Your task to perform on an android device: make emails show in primary in the gmail app Image 0: 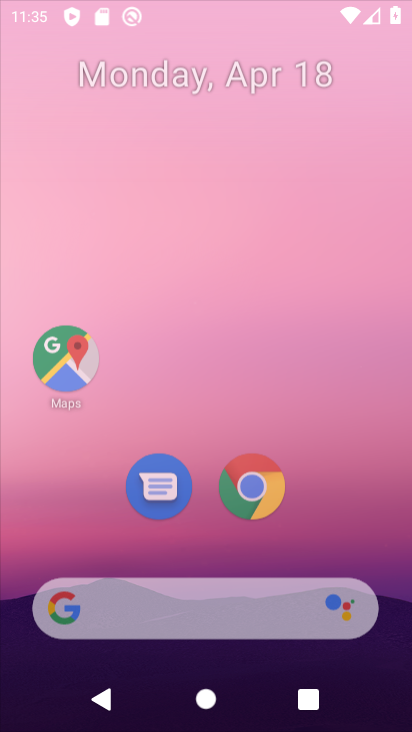
Step 0: press home button
Your task to perform on an android device: make emails show in primary in the gmail app Image 1: 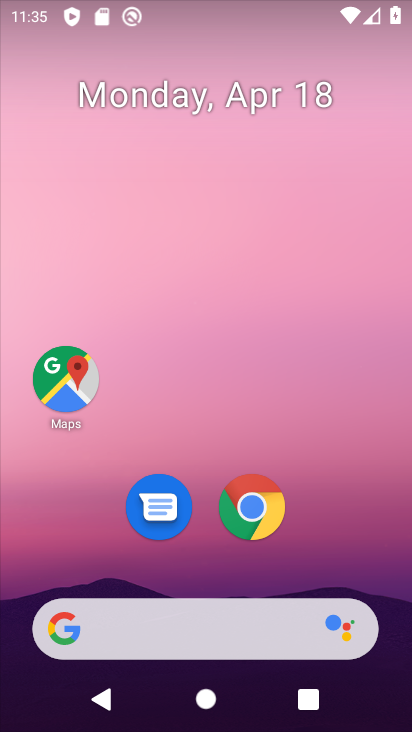
Step 1: drag from (212, 549) to (236, 1)
Your task to perform on an android device: make emails show in primary in the gmail app Image 2: 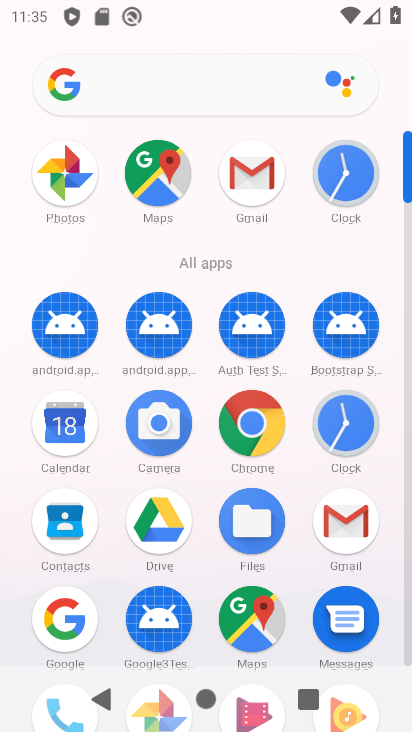
Step 2: click (349, 520)
Your task to perform on an android device: make emails show in primary in the gmail app Image 3: 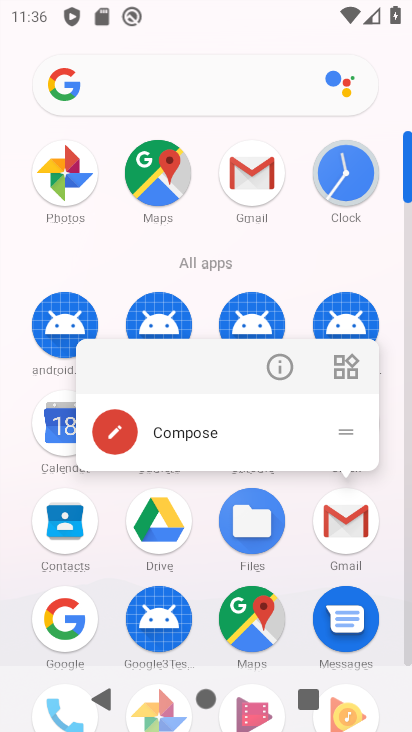
Step 3: click (343, 510)
Your task to perform on an android device: make emails show in primary in the gmail app Image 4: 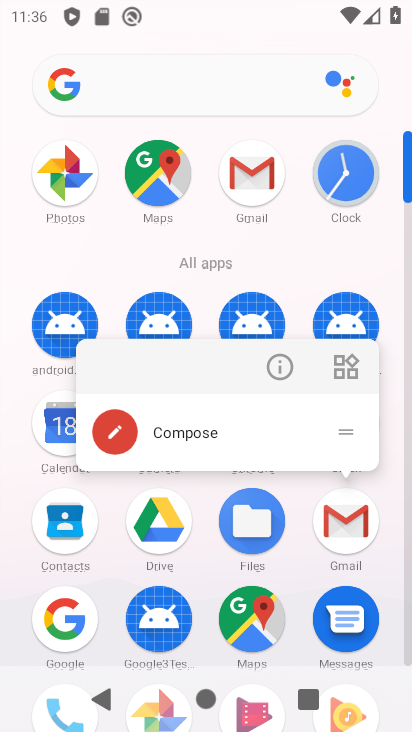
Step 4: click (342, 513)
Your task to perform on an android device: make emails show in primary in the gmail app Image 5: 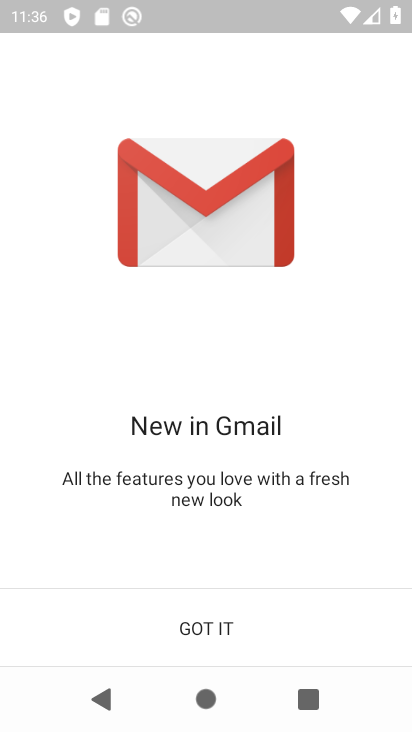
Step 5: click (207, 633)
Your task to perform on an android device: make emails show in primary in the gmail app Image 6: 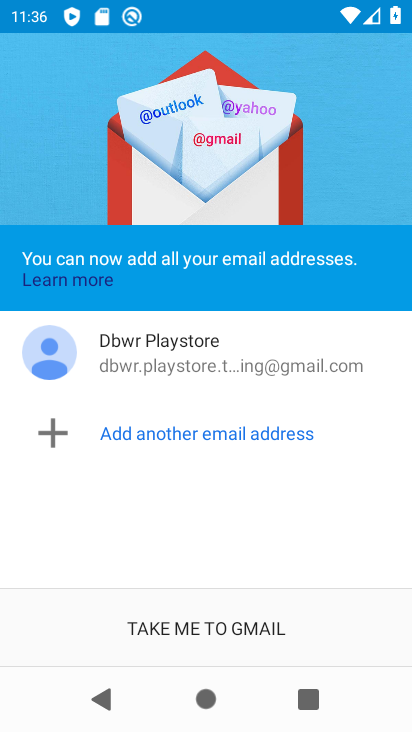
Step 6: click (207, 633)
Your task to perform on an android device: make emails show in primary in the gmail app Image 7: 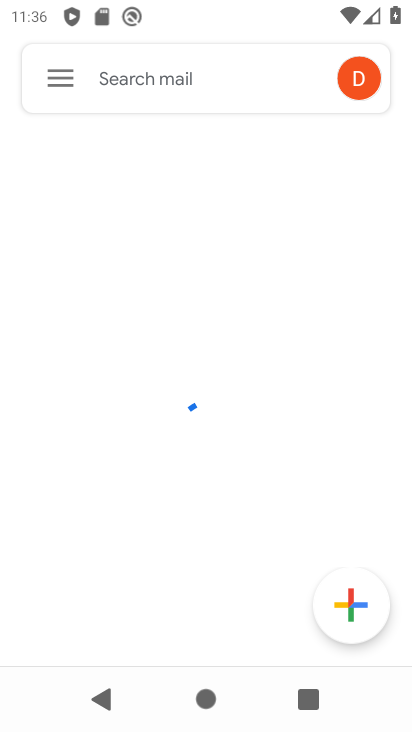
Step 7: click (64, 77)
Your task to perform on an android device: make emails show in primary in the gmail app Image 8: 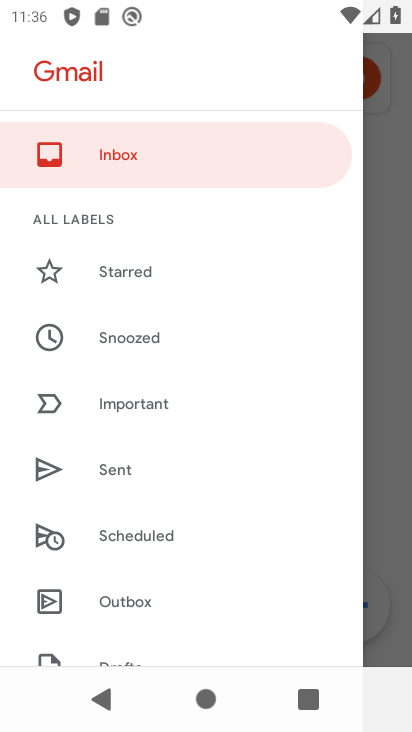
Step 8: drag from (159, 583) to (242, 57)
Your task to perform on an android device: make emails show in primary in the gmail app Image 9: 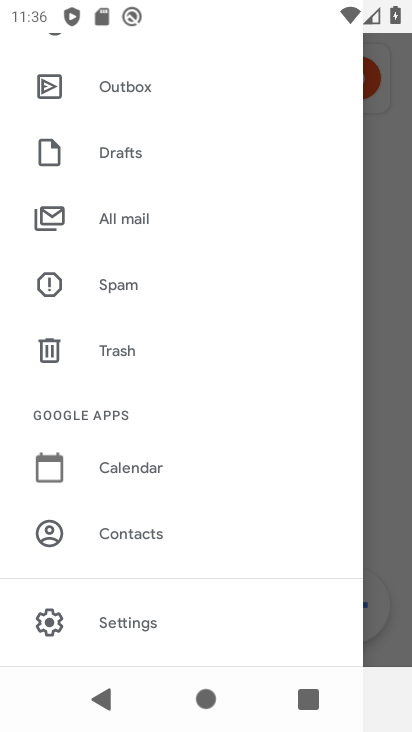
Step 9: drag from (176, 616) to (244, 93)
Your task to perform on an android device: make emails show in primary in the gmail app Image 10: 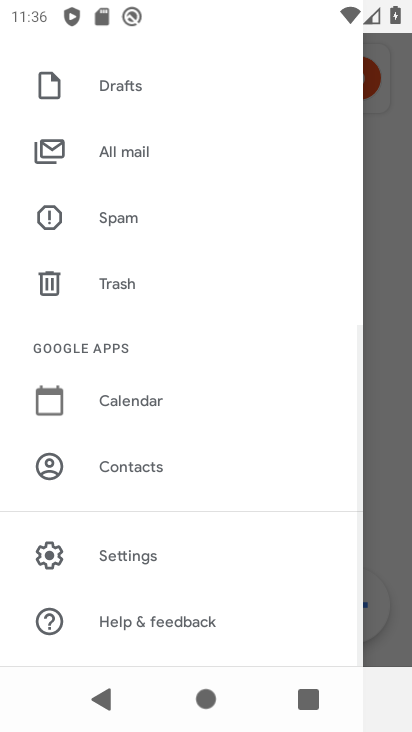
Step 10: click (156, 554)
Your task to perform on an android device: make emails show in primary in the gmail app Image 11: 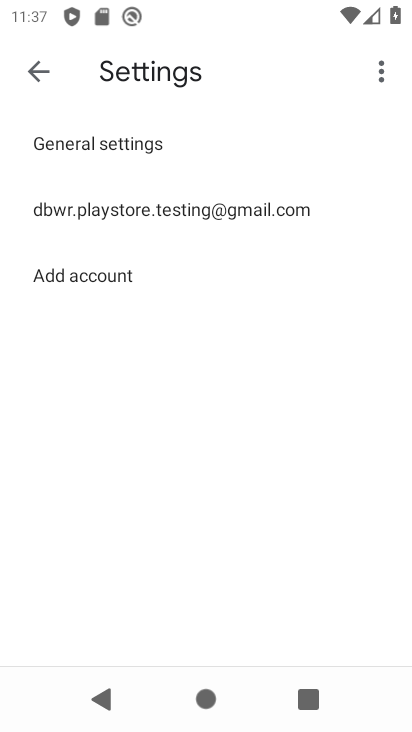
Step 11: click (222, 202)
Your task to perform on an android device: make emails show in primary in the gmail app Image 12: 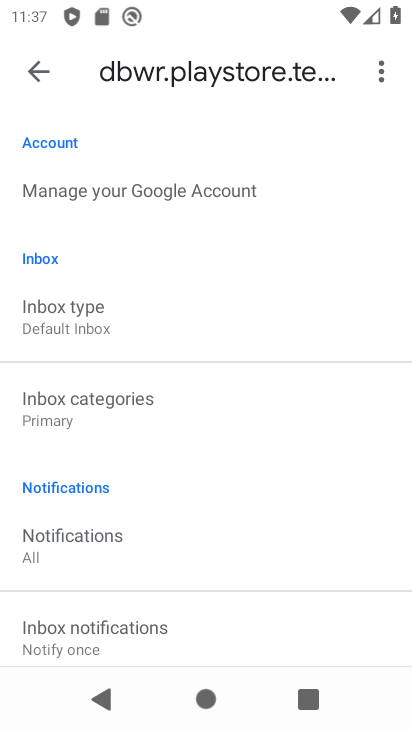
Step 12: drag from (165, 599) to (217, 78)
Your task to perform on an android device: make emails show in primary in the gmail app Image 13: 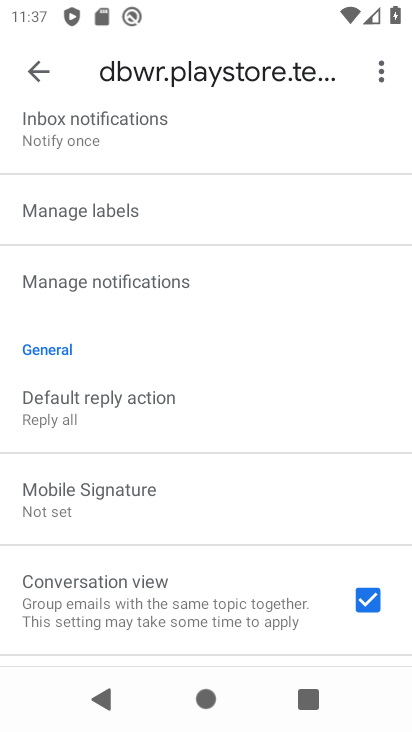
Step 13: drag from (168, 614) to (231, 32)
Your task to perform on an android device: make emails show in primary in the gmail app Image 14: 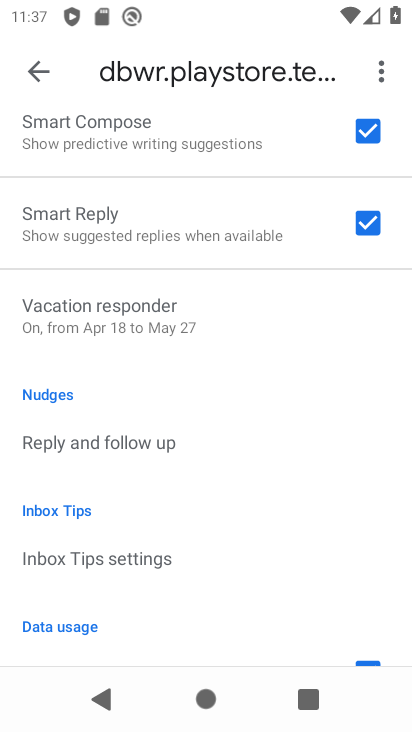
Step 14: drag from (151, 566) to (161, 486)
Your task to perform on an android device: make emails show in primary in the gmail app Image 15: 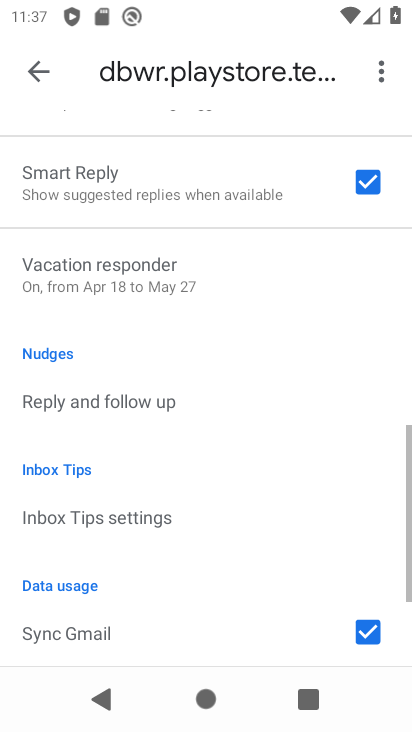
Step 15: drag from (169, 408) to (212, 712)
Your task to perform on an android device: make emails show in primary in the gmail app Image 16: 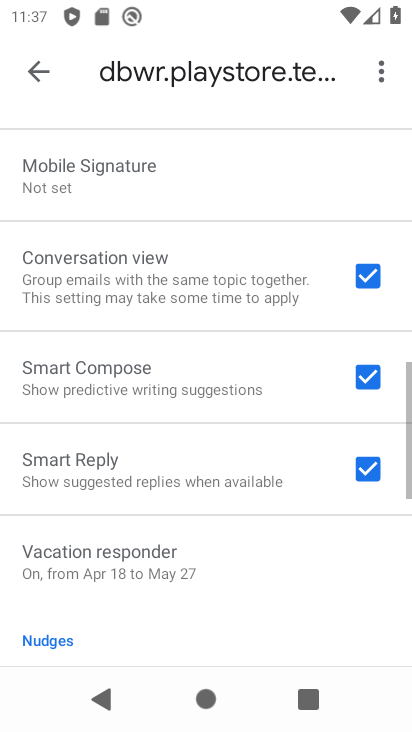
Step 16: drag from (201, 171) to (198, 729)
Your task to perform on an android device: make emails show in primary in the gmail app Image 17: 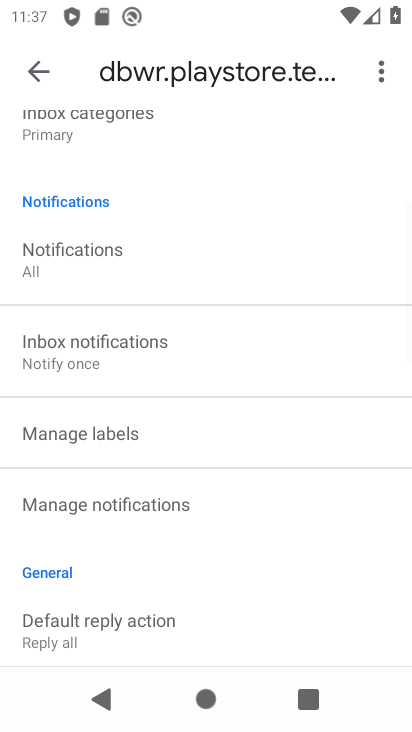
Step 17: drag from (200, 192) to (212, 660)
Your task to perform on an android device: make emails show in primary in the gmail app Image 18: 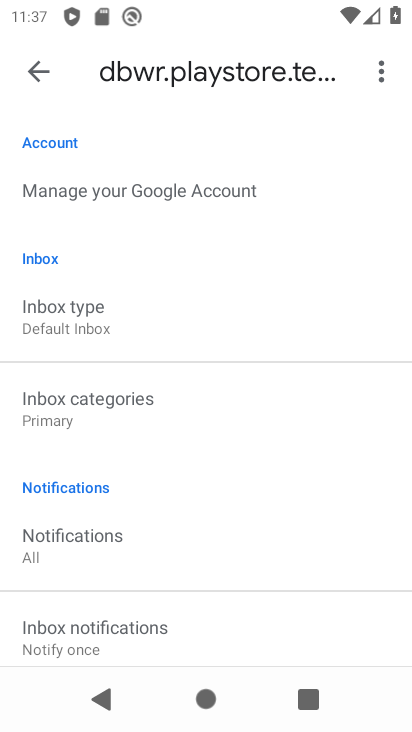
Step 18: drag from (170, 179) to (181, 656)
Your task to perform on an android device: make emails show in primary in the gmail app Image 19: 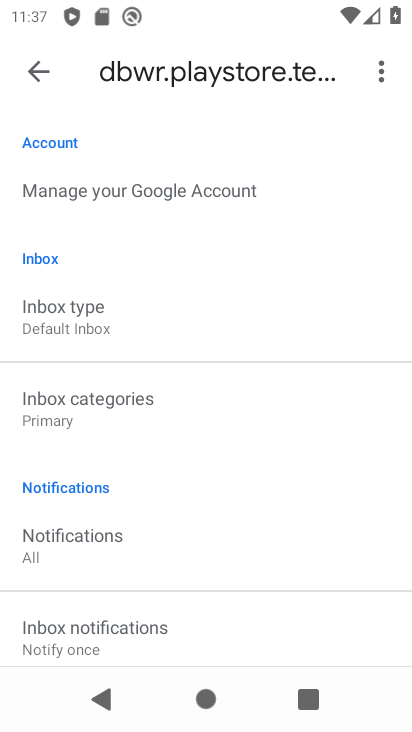
Step 19: drag from (186, 215) to (186, 630)
Your task to perform on an android device: make emails show in primary in the gmail app Image 20: 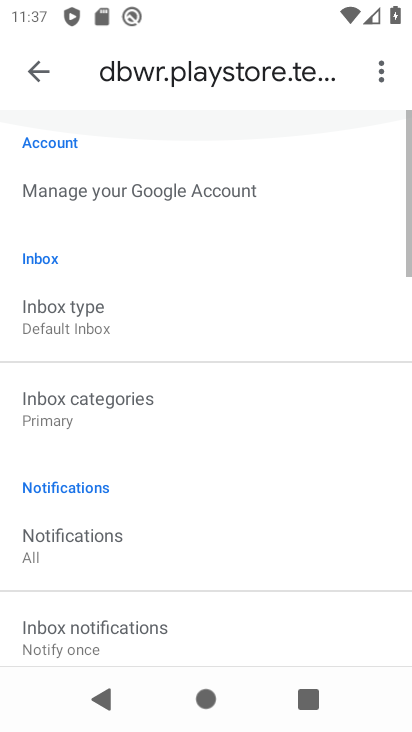
Step 20: click (92, 320)
Your task to perform on an android device: make emails show in primary in the gmail app Image 21: 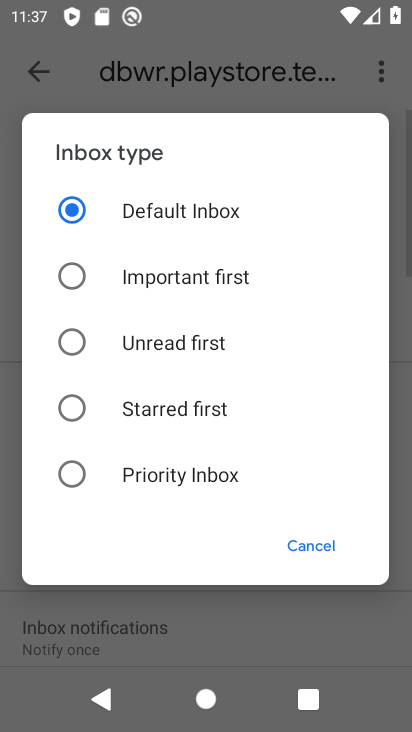
Step 21: click (114, 199)
Your task to perform on an android device: make emails show in primary in the gmail app Image 22: 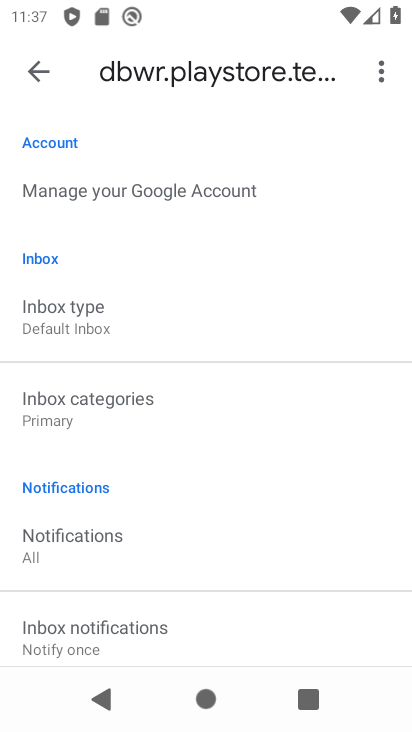
Step 22: task complete